Your task to perform on an android device: Go to Reddit.com Image 0: 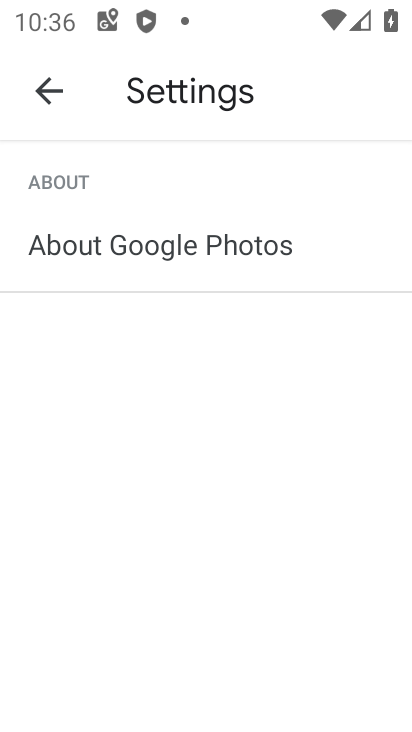
Step 0: press home button
Your task to perform on an android device: Go to Reddit.com Image 1: 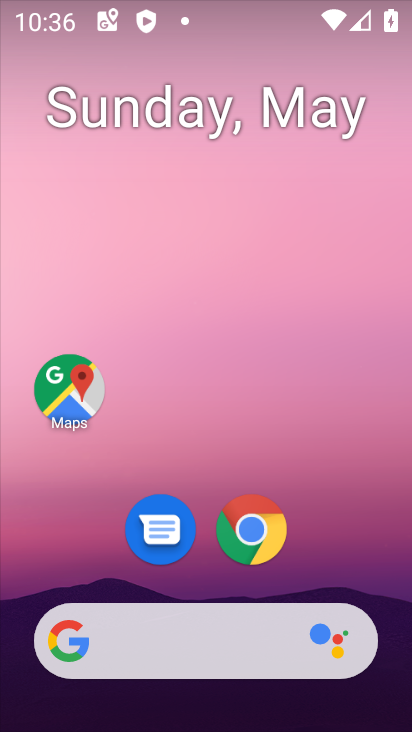
Step 1: click (245, 545)
Your task to perform on an android device: Go to Reddit.com Image 2: 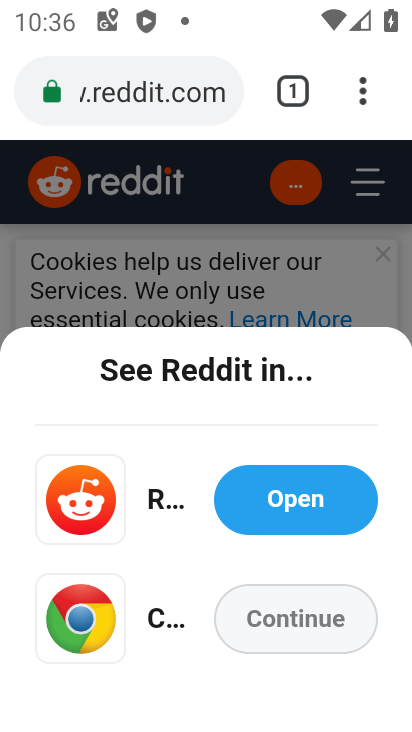
Step 2: click (321, 646)
Your task to perform on an android device: Go to Reddit.com Image 3: 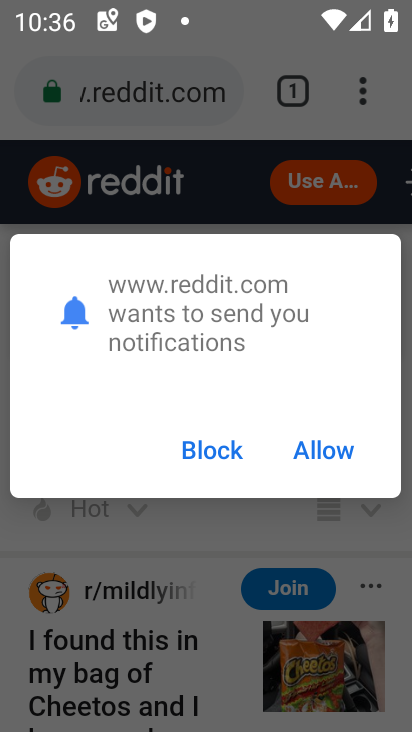
Step 3: click (335, 452)
Your task to perform on an android device: Go to Reddit.com Image 4: 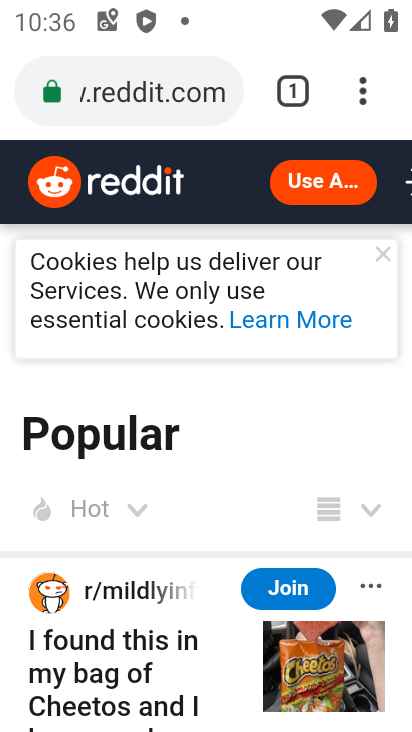
Step 4: task complete